Your task to perform on an android device: turn on showing notifications on the lock screen Image 0: 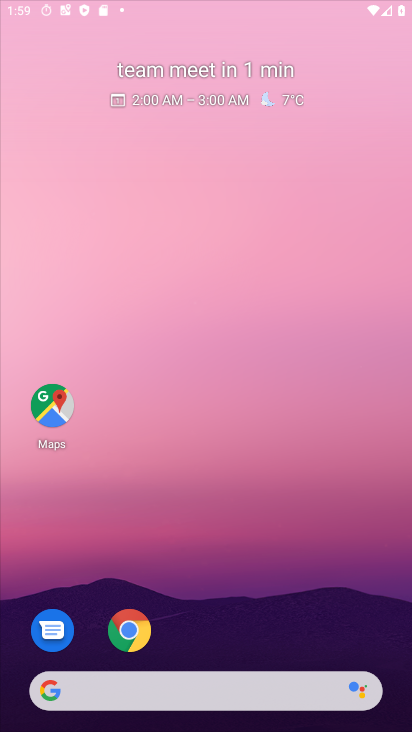
Step 0: drag from (190, 684) to (180, 170)
Your task to perform on an android device: turn on showing notifications on the lock screen Image 1: 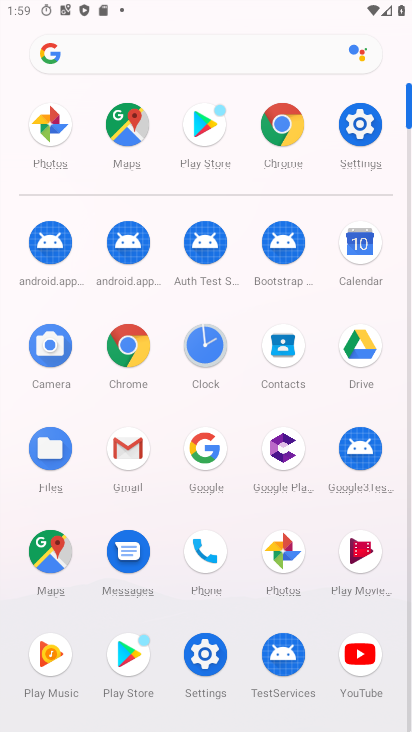
Step 1: click (366, 127)
Your task to perform on an android device: turn on showing notifications on the lock screen Image 2: 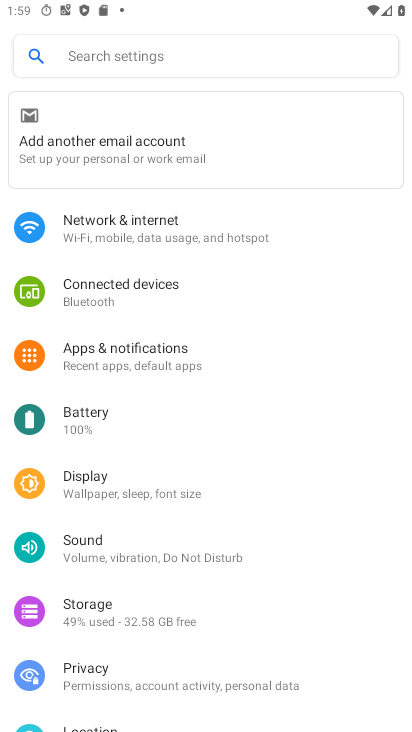
Step 2: drag from (139, 630) to (151, 375)
Your task to perform on an android device: turn on showing notifications on the lock screen Image 3: 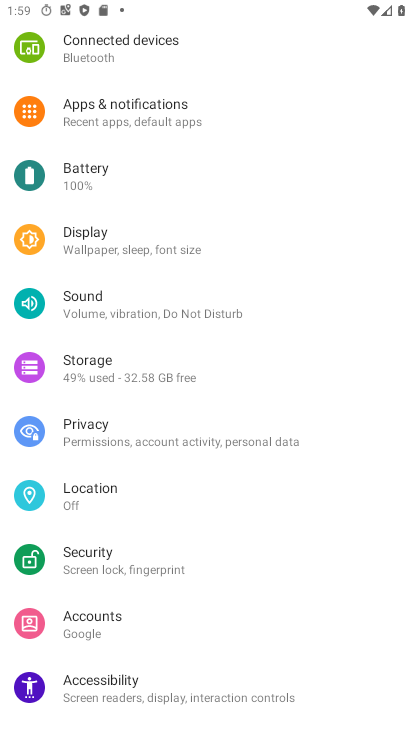
Step 3: click (139, 495)
Your task to perform on an android device: turn on showing notifications on the lock screen Image 4: 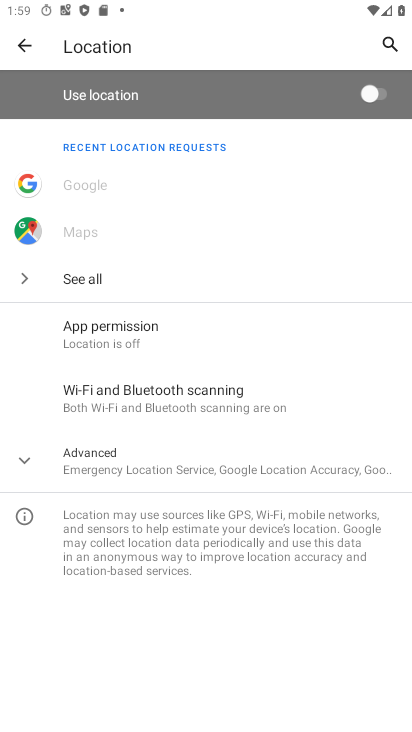
Step 4: click (28, 51)
Your task to perform on an android device: turn on showing notifications on the lock screen Image 5: 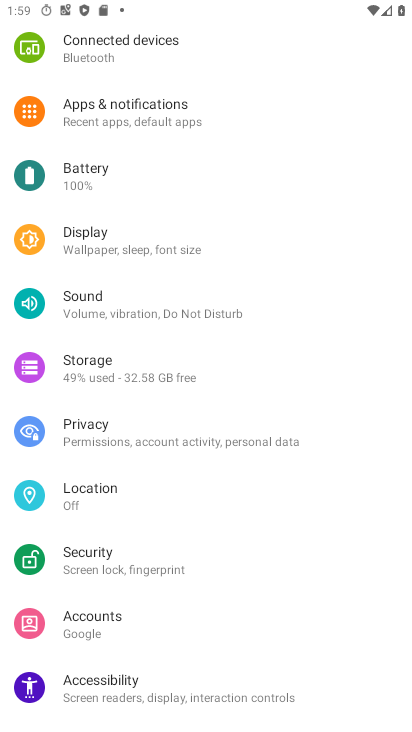
Step 5: click (128, 123)
Your task to perform on an android device: turn on showing notifications on the lock screen Image 6: 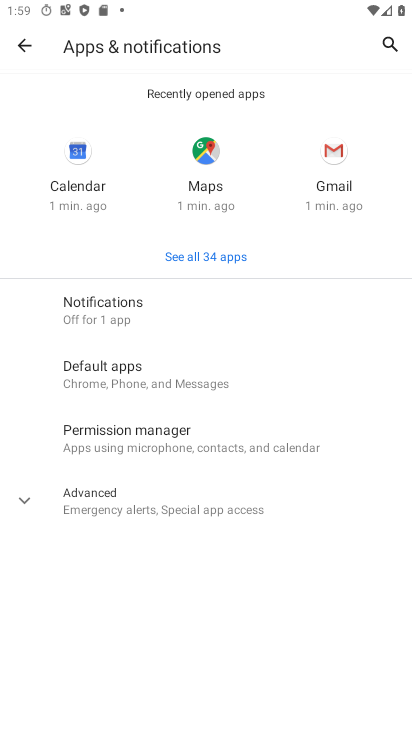
Step 6: click (147, 319)
Your task to perform on an android device: turn on showing notifications on the lock screen Image 7: 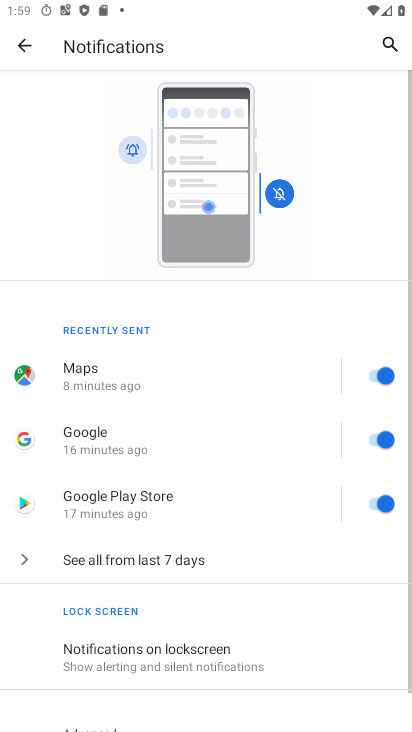
Step 7: click (231, 653)
Your task to perform on an android device: turn on showing notifications on the lock screen Image 8: 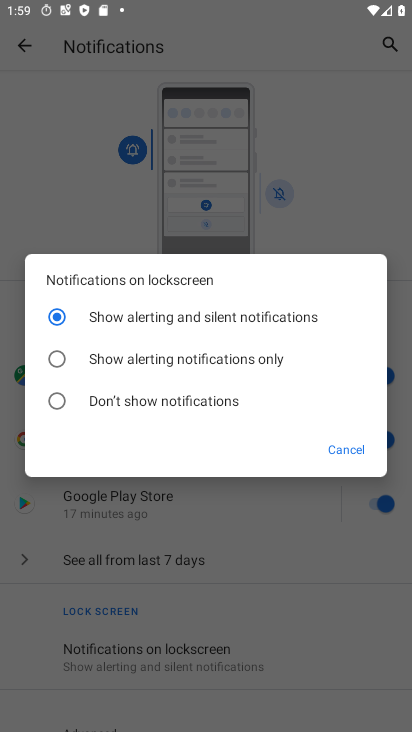
Step 8: click (226, 314)
Your task to perform on an android device: turn on showing notifications on the lock screen Image 9: 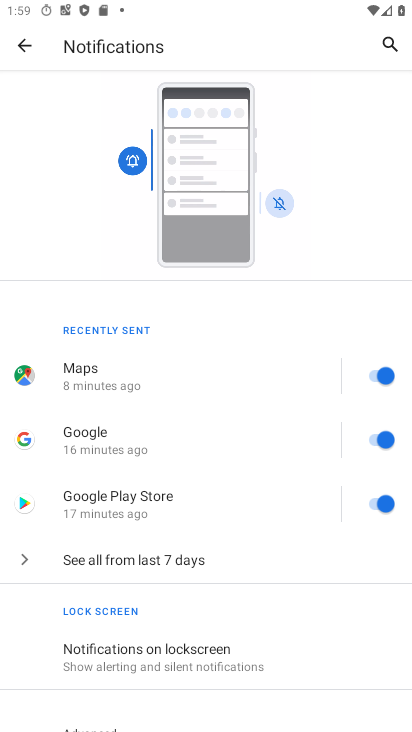
Step 9: task complete